Your task to perform on an android device: Open location settings Image 0: 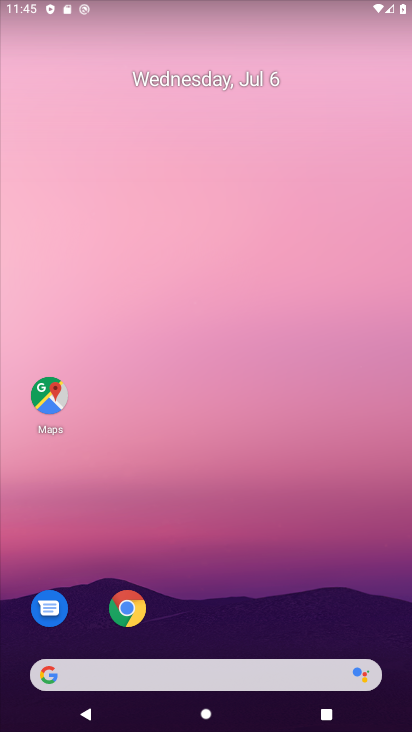
Step 0: drag from (278, 586) to (134, 0)
Your task to perform on an android device: Open location settings Image 1: 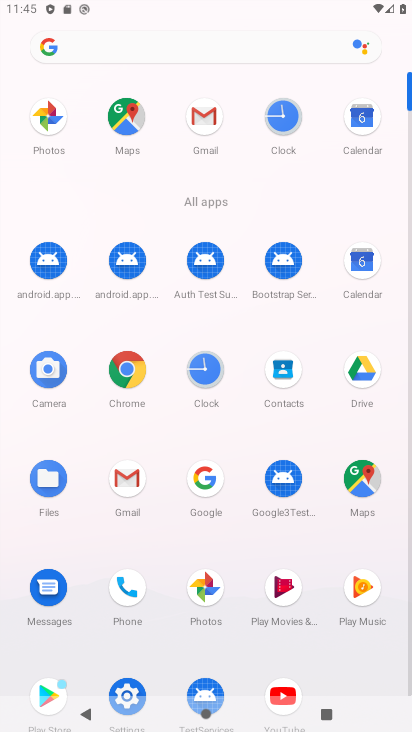
Step 1: click (124, 683)
Your task to perform on an android device: Open location settings Image 2: 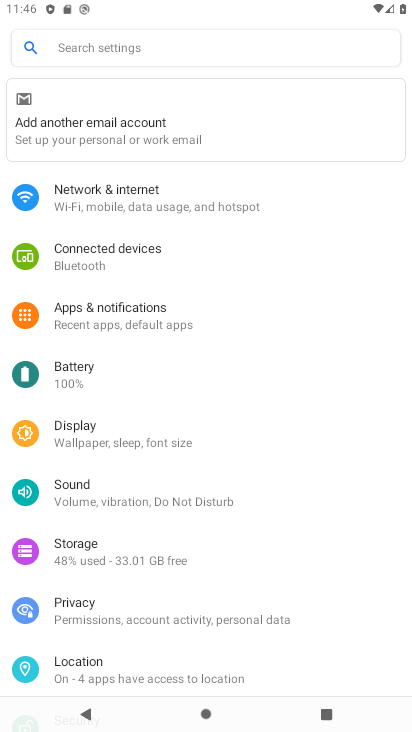
Step 2: click (76, 660)
Your task to perform on an android device: Open location settings Image 3: 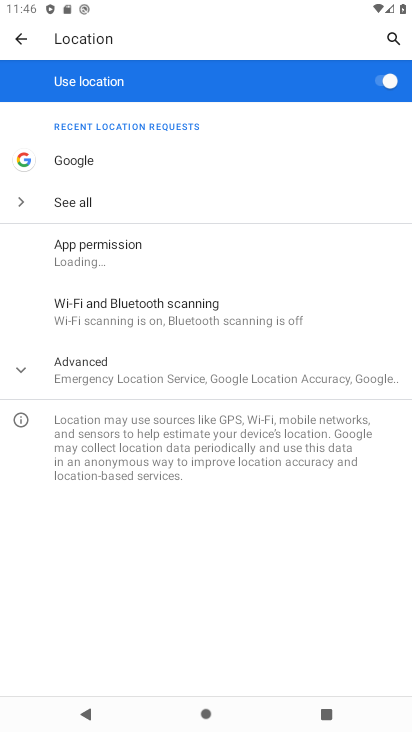
Step 3: task complete